Your task to perform on an android device: Open calendar and show me the first week of next month Image 0: 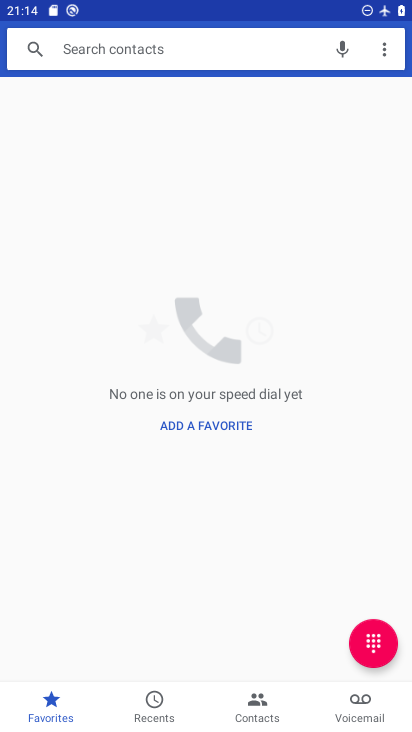
Step 0: press home button
Your task to perform on an android device: Open calendar and show me the first week of next month Image 1: 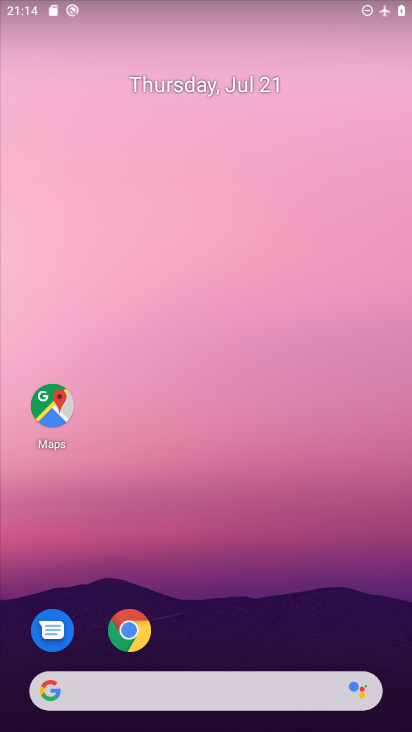
Step 1: drag from (328, 547) to (308, 5)
Your task to perform on an android device: Open calendar and show me the first week of next month Image 2: 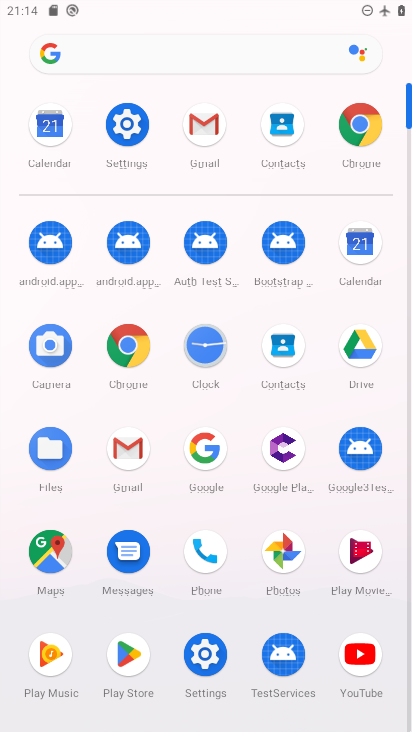
Step 2: click (360, 257)
Your task to perform on an android device: Open calendar and show me the first week of next month Image 3: 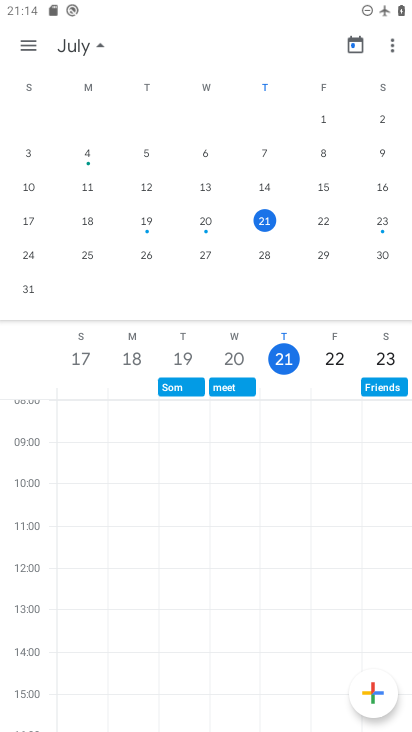
Step 3: click (392, 39)
Your task to perform on an android device: Open calendar and show me the first week of next month Image 4: 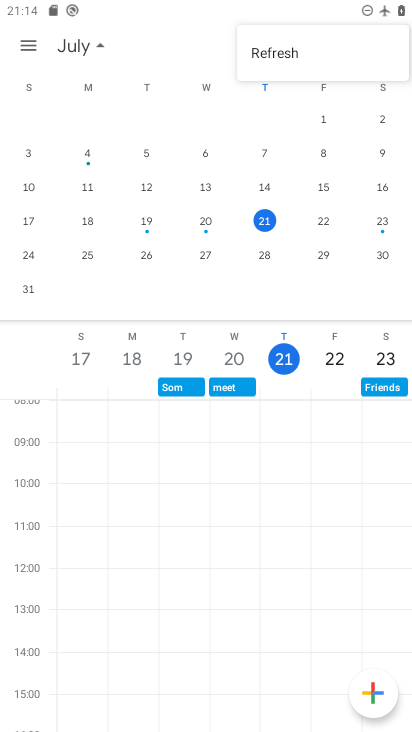
Step 4: click (289, 519)
Your task to perform on an android device: Open calendar and show me the first week of next month Image 5: 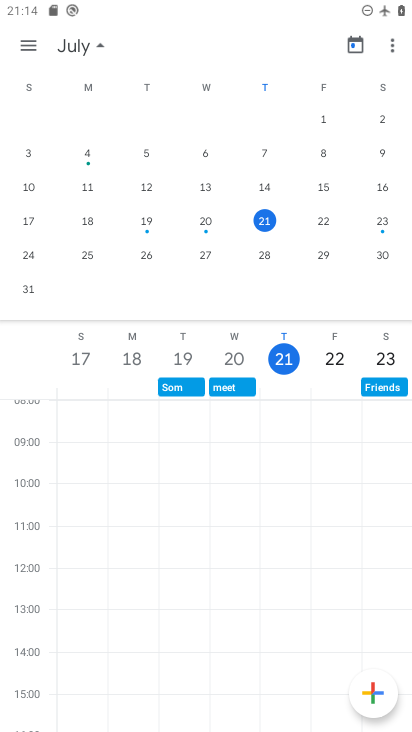
Step 5: click (209, 247)
Your task to perform on an android device: Open calendar and show me the first week of next month Image 6: 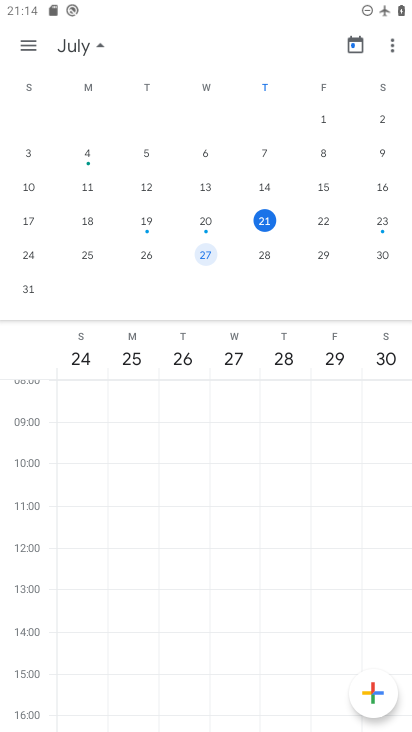
Step 6: drag from (380, 192) to (98, 168)
Your task to perform on an android device: Open calendar and show me the first week of next month Image 7: 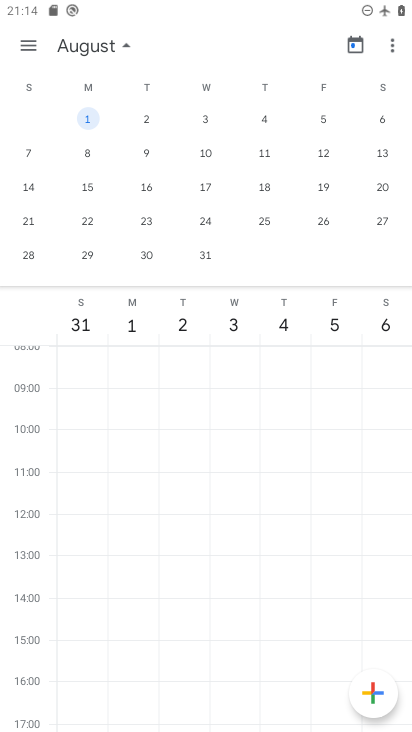
Step 7: click (282, 121)
Your task to perform on an android device: Open calendar and show me the first week of next month Image 8: 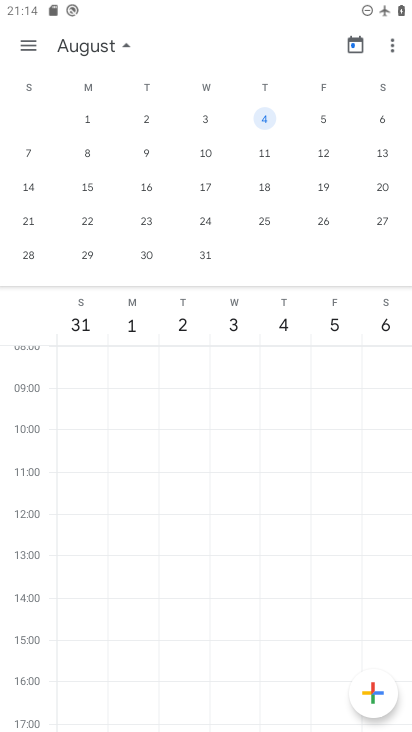
Step 8: task complete